Your task to perform on an android device: Do I have any events today? Image 0: 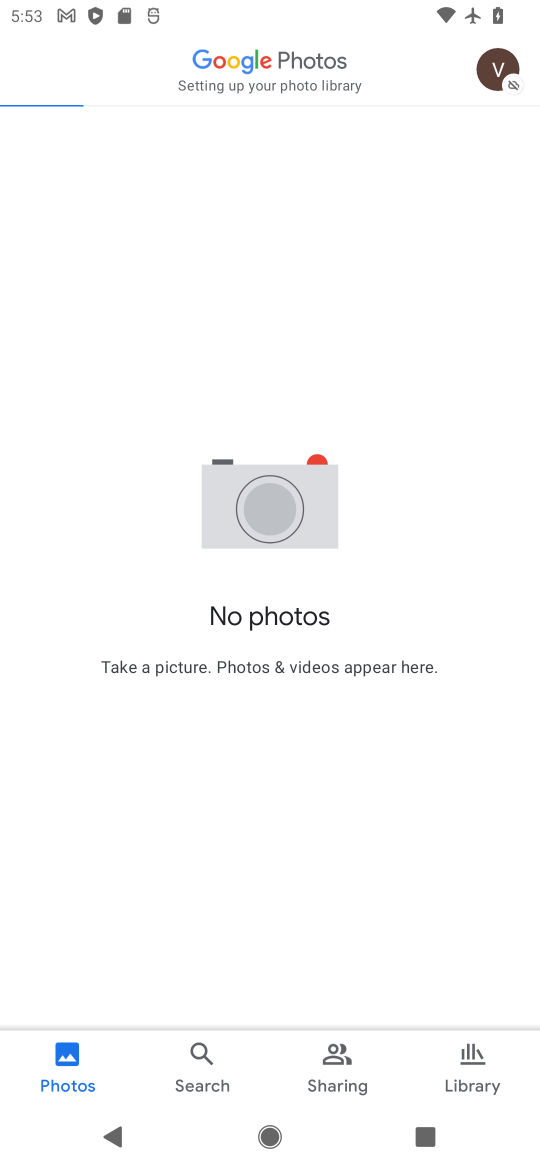
Step 0: press home button
Your task to perform on an android device: Do I have any events today? Image 1: 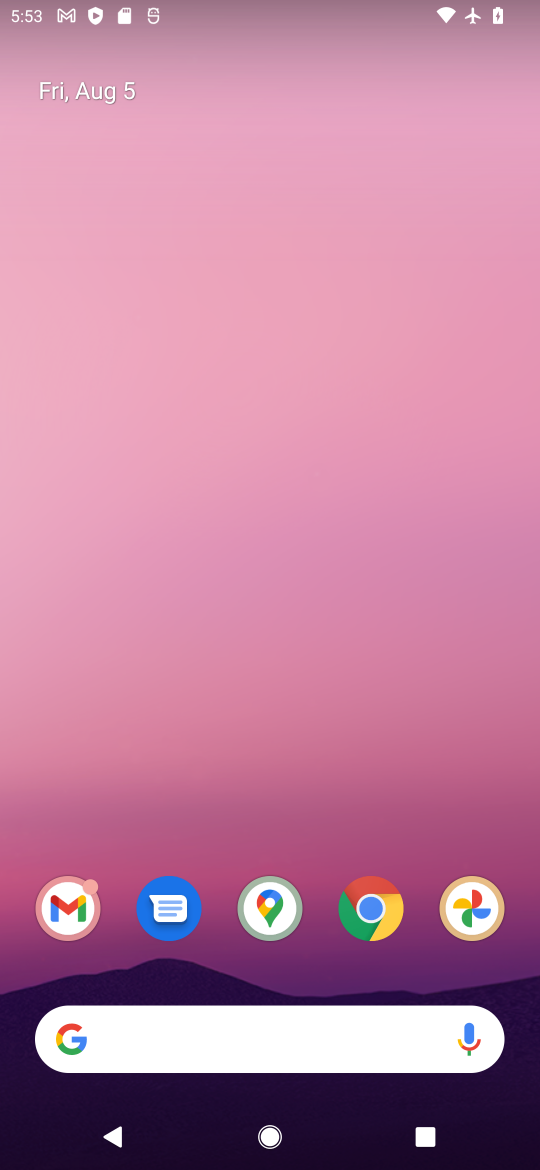
Step 1: drag from (266, 868) to (275, 138)
Your task to perform on an android device: Do I have any events today? Image 2: 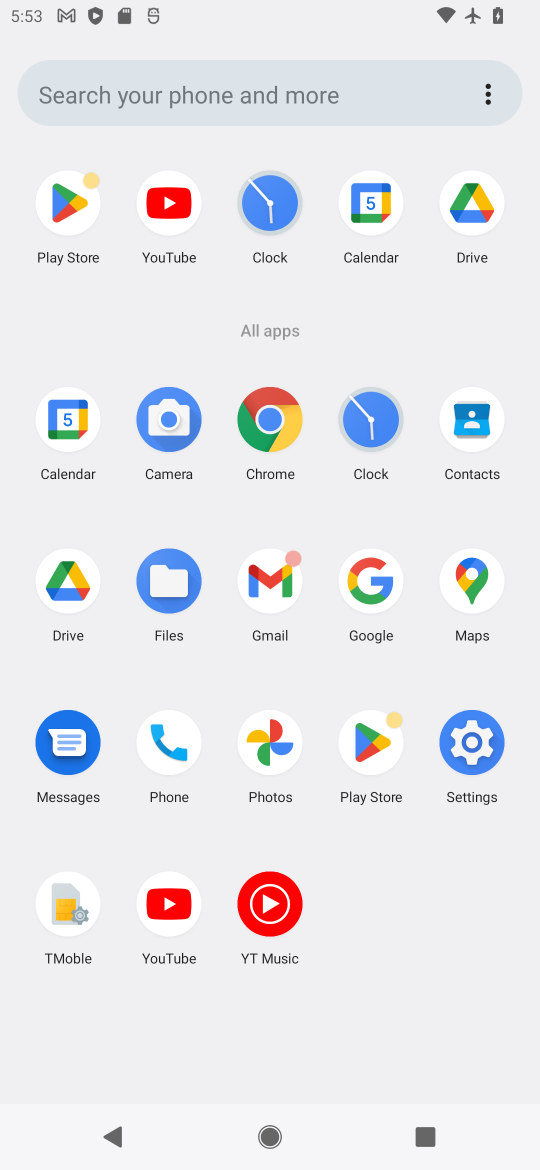
Step 2: click (62, 460)
Your task to perform on an android device: Do I have any events today? Image 3: 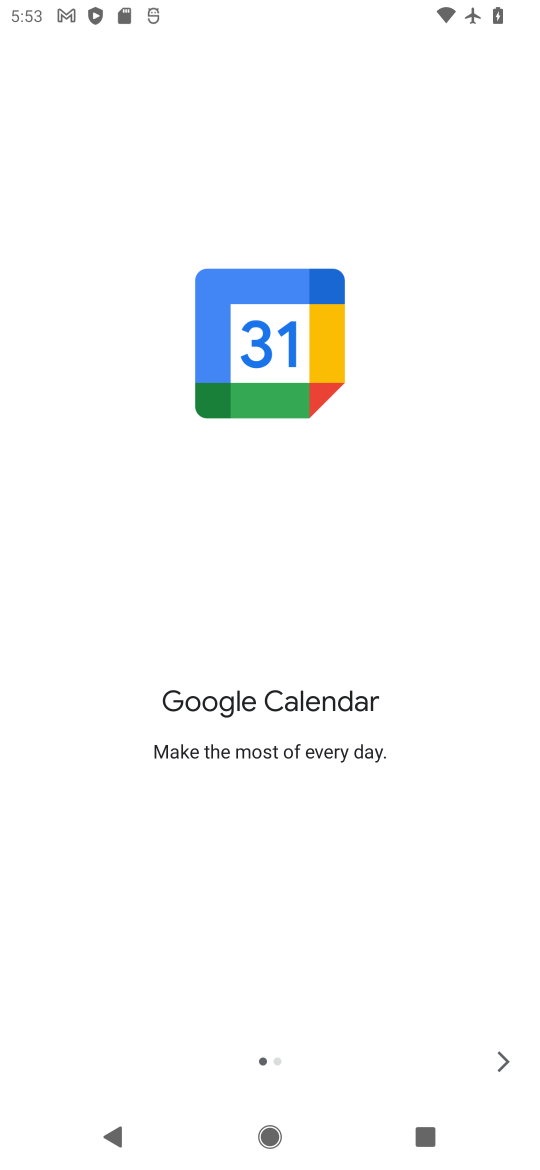
Step 3: click (500, 1060)
Your task to perform on an android device: Do I have any events today? Image 4: 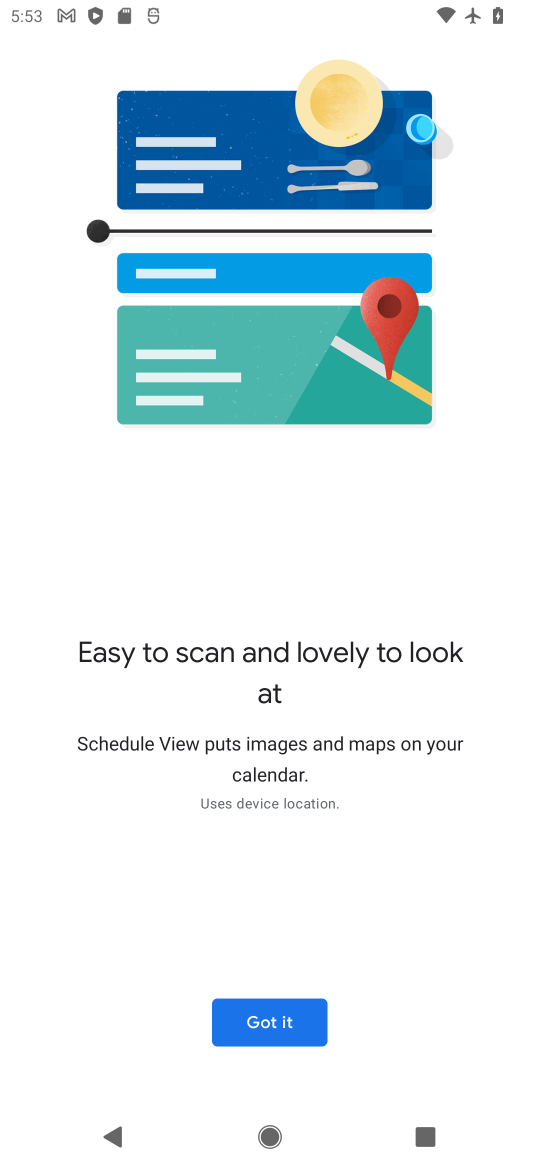
Step 4: click (271, 1010)
Your task to perform on an android device: Do I have any events today? Image 5: 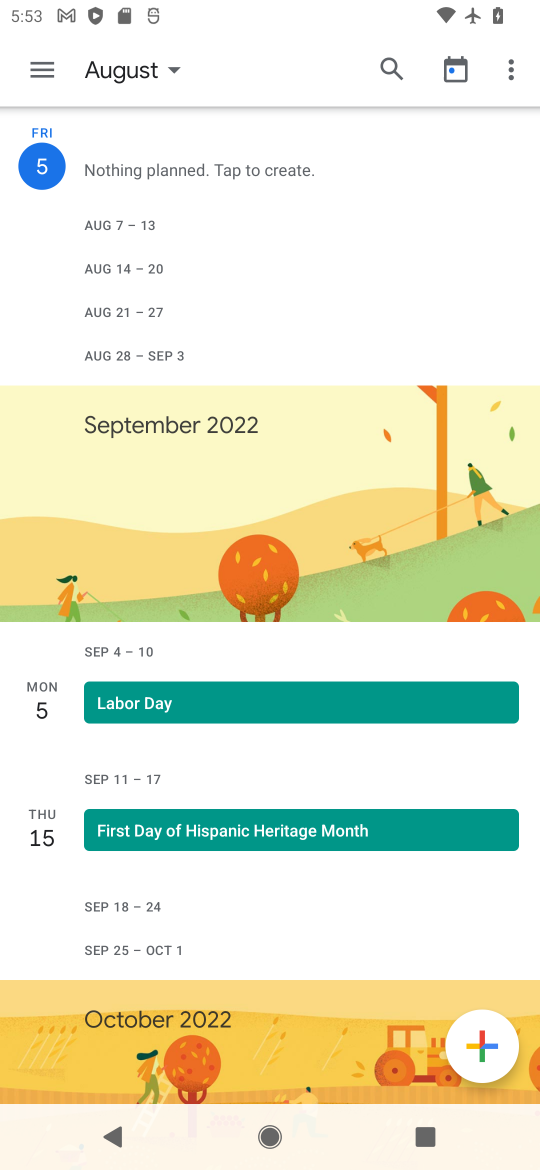
Step 5: task complete